Your task to perform on an android device: Go to battery settings Image 0: 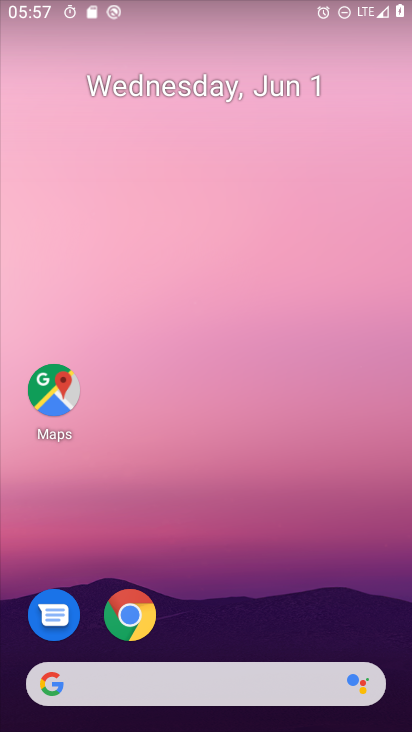
Step 0: drag from (200, 694) to (226, 48)
Your task to perform on an android device: Go to battery settings Image 1: 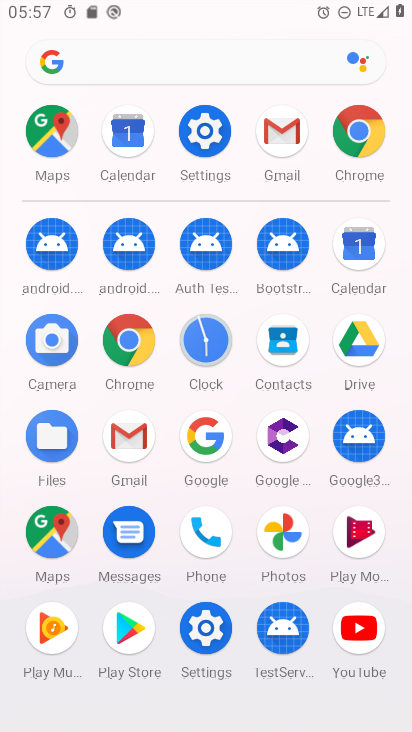
Step 1: click (210, 139)
Your task to perform on an android device: Go to battery settings Image 2: 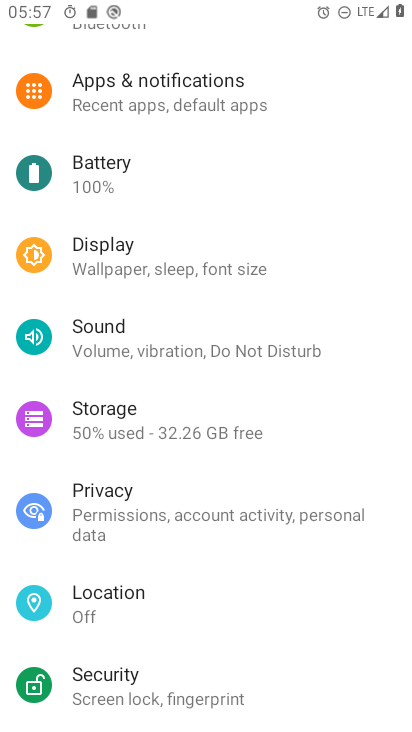
Step 2: click (120, 187)
Your task to perform on an android device: Go to battery settings Image 3: 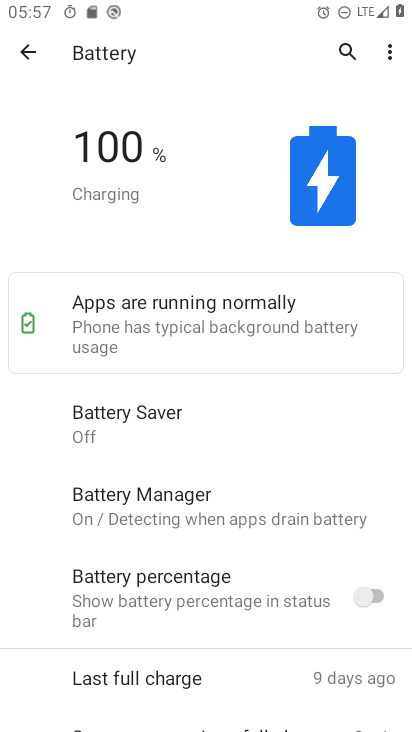
Step 3: task complete